Your task to perform on an android device: Turn off the flashlight Image 0: 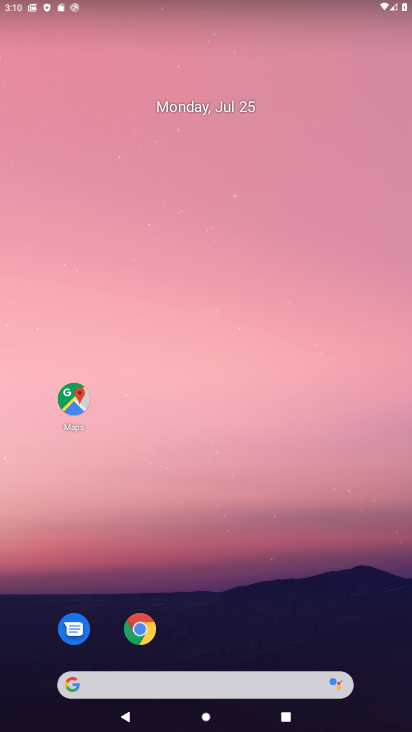
Step 0: drag from (226, 10) to (224, 651)
Your task to perform on an android device: Turn off the flashlight Image 1: 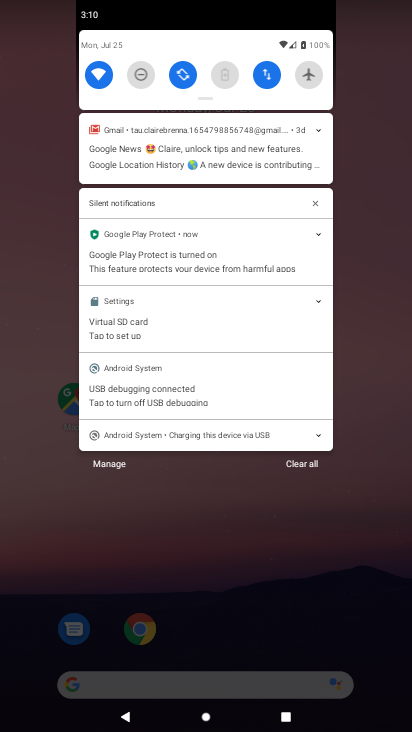
Step 1: task complete